Your task to perform on an android device: check data usage Image 0: 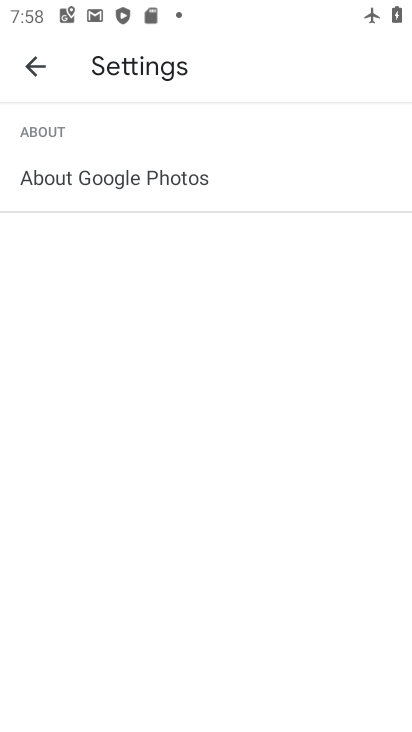
Step 0: press home button
Your task to perform on an android device: check data usage Image 1: 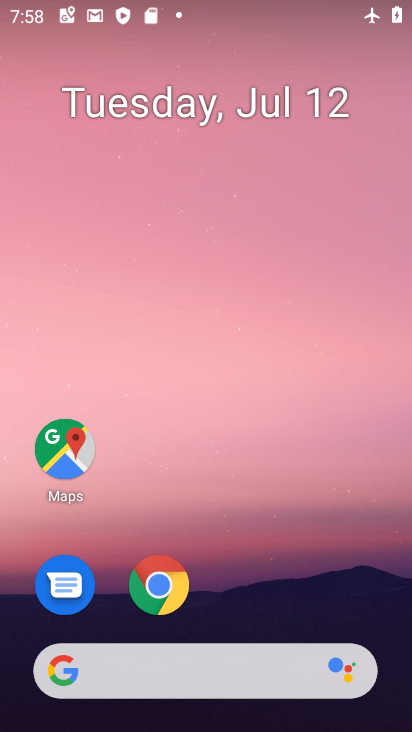
Step 1: drag from (240, 601) to (294, 61)
Your task to perform on an android device: check data usage Image 2: 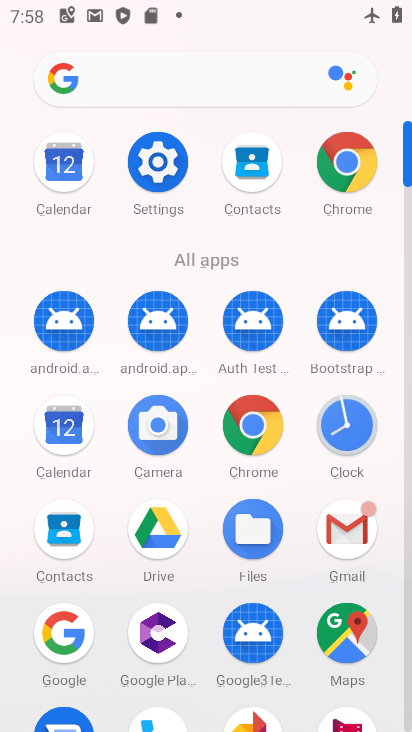
Step 2: click (175, 168)
Your task to perform on an android device: check data usage Image 3: 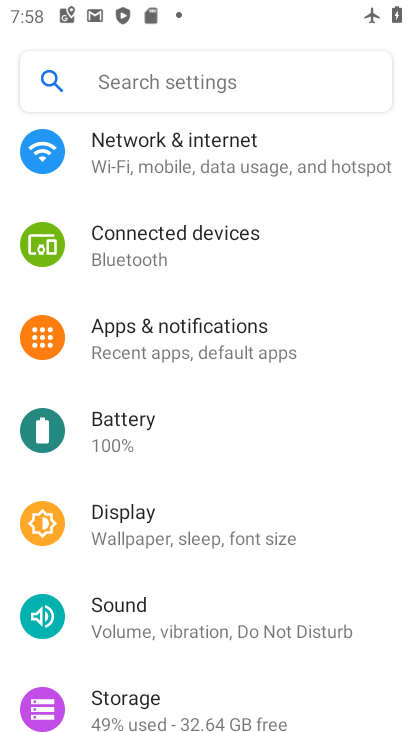
Step 3: click (231, 155)
Your task to perform on an android device: check data usage Image 4: 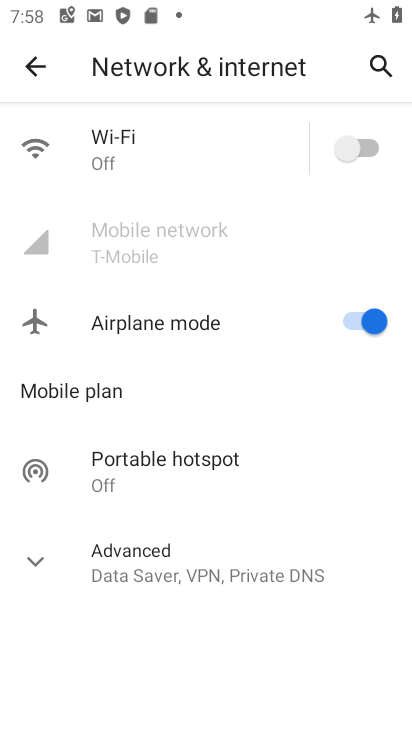
Step 4: click (209, 232)
Your task to perform on an android device: check data usage Image 5: 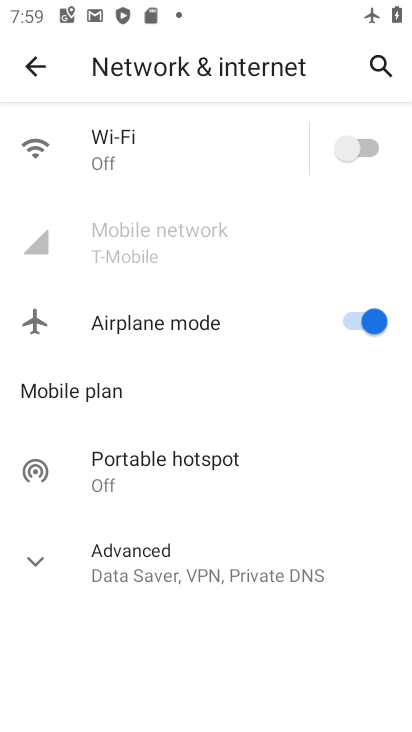
Step 5: click (364, 318)
Your task to perform on an android device: check data usage Image 6: 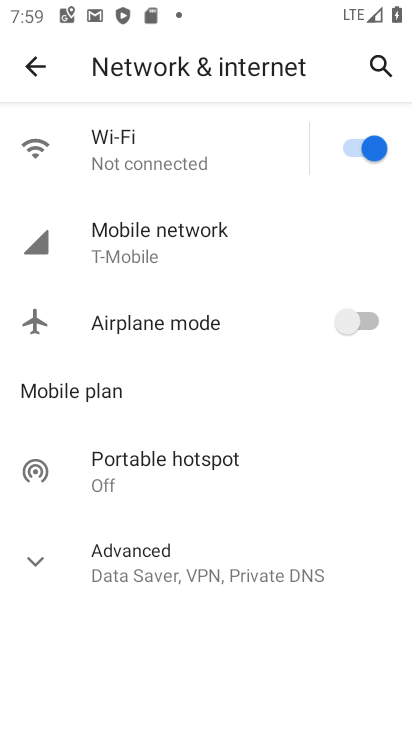
Step 6: click (237, 231)
Your task to perform on an android device: check data usage Image 7: 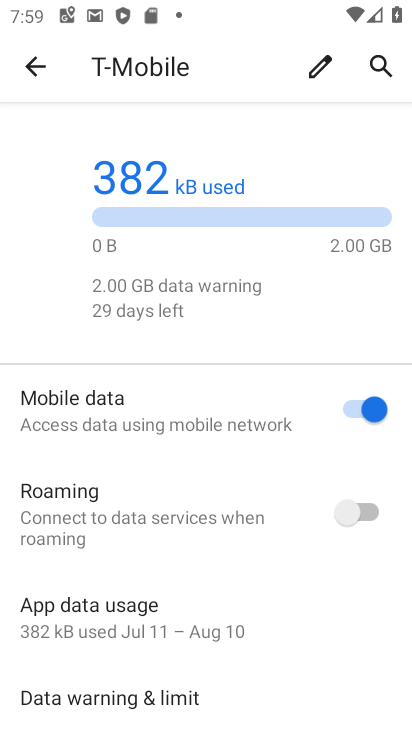
Step 7: task complete